Your task to perform on an android device: turn on wifi Image 0: 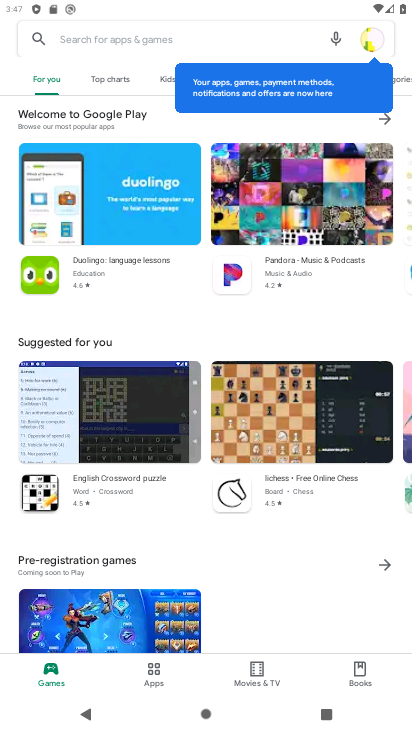
Step 0: press home button
Your task to perform on an android device: turn on wifi Image 1: 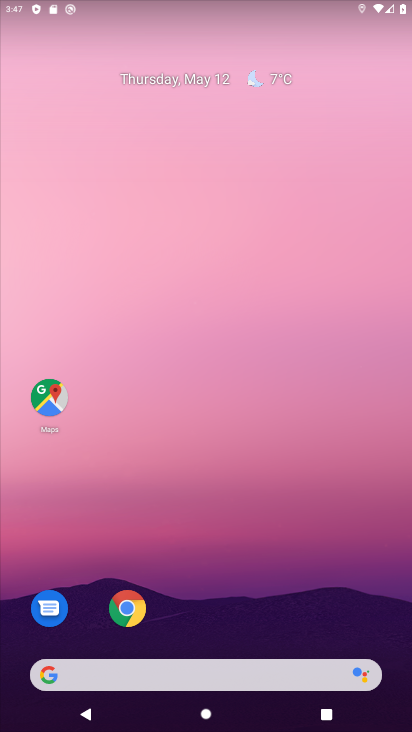
Step 1: task complete